Your task to perform on an android device: Search for pizza restaurants on Maps Image 0: 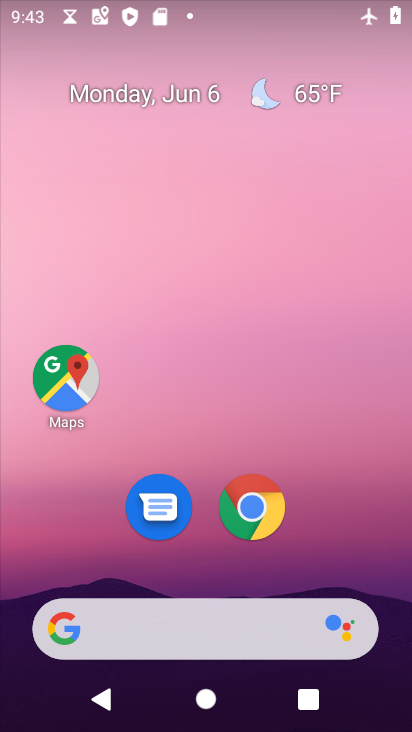
Step 0: click (64, 379)
Your task to perform on an android device: Search for pizza restaurants on Maps Image 1: 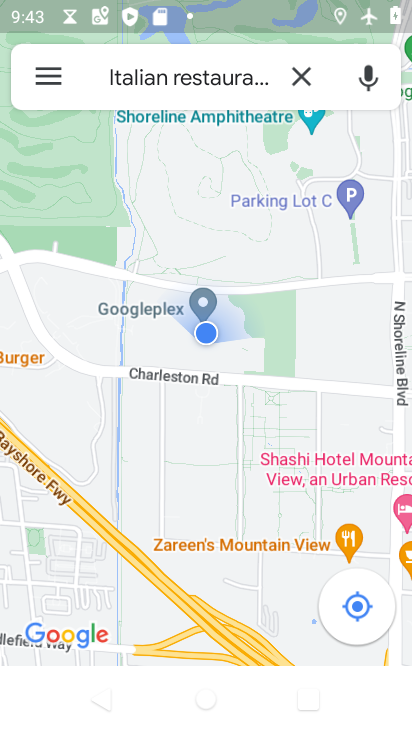
Step 1: click (296, 74)
Your task to perform on an android device: Search for pizza restaurants on Maps Image 2: 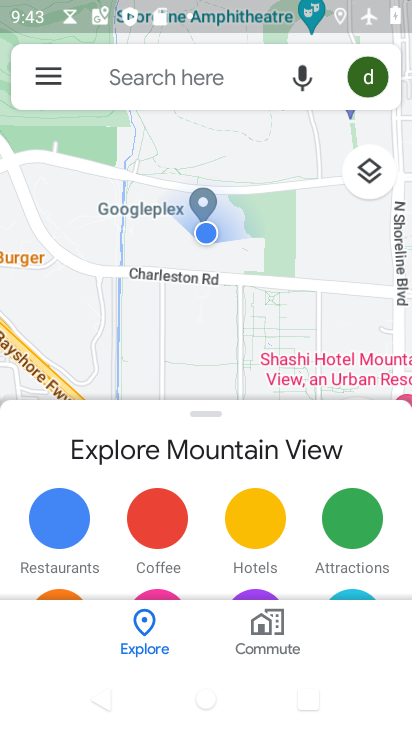
Step 2: click (153, 62)
Your task to perform on an android device: Search for pizza restaurants on Maps Image 3: 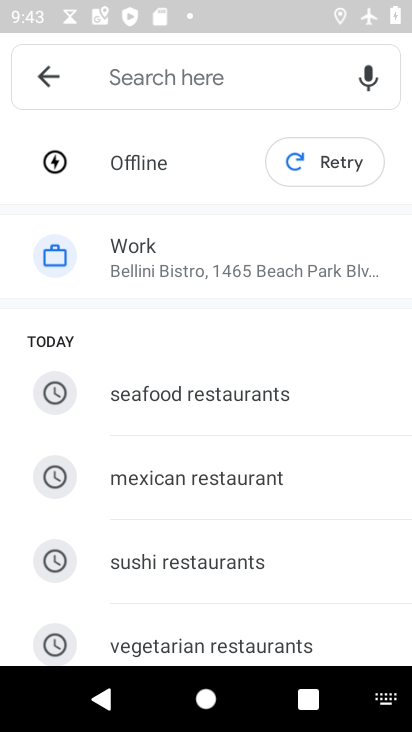
Step 3: drag from (219, 610) to (240, 303)
Your task to perform on an android device: Search for pizza restaurants on Maps Image 4: 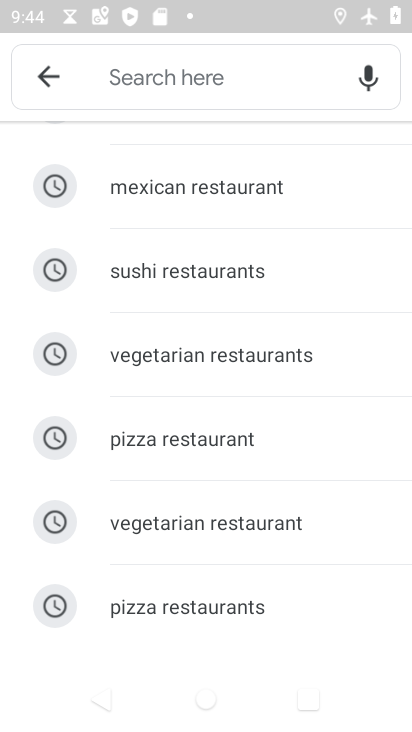
Step 4: click (190, 432)
Your task to perform on an android device: Search for pizza restaurants on Maps Image 5: 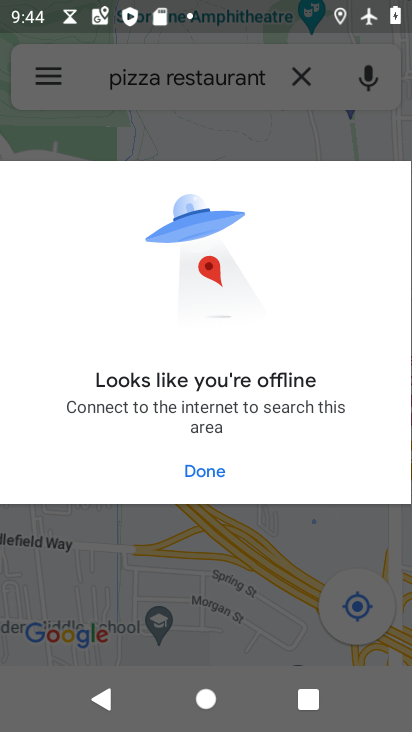
Step 5: task complete